Your task to perform on an android device: Open a new Chrome incognito tab Image 0: 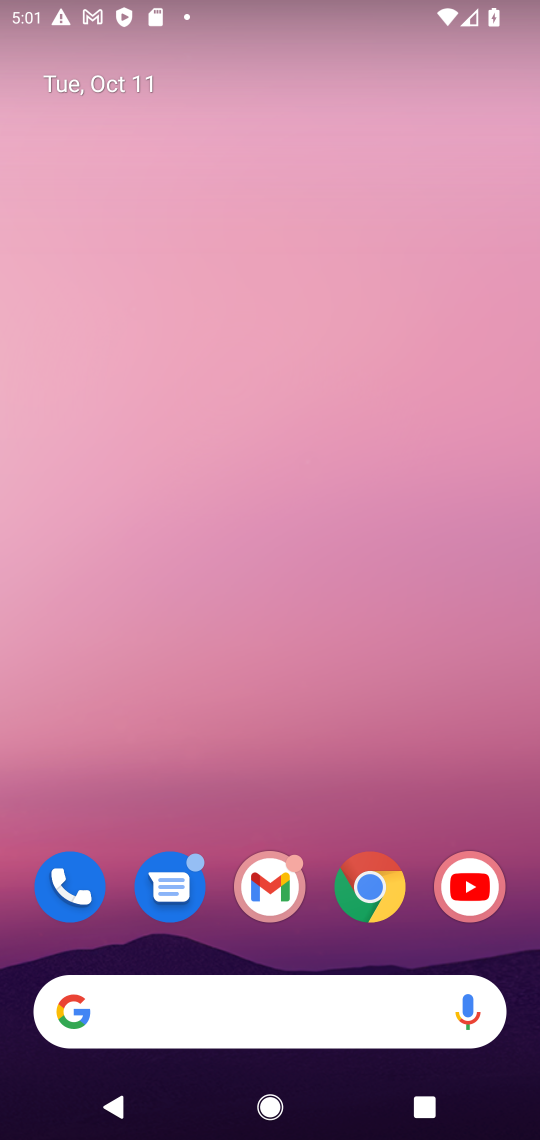
Step 0: click (285, 992)
Your task to perform on an android device: Open a new Chrome incognito tab Image 1: 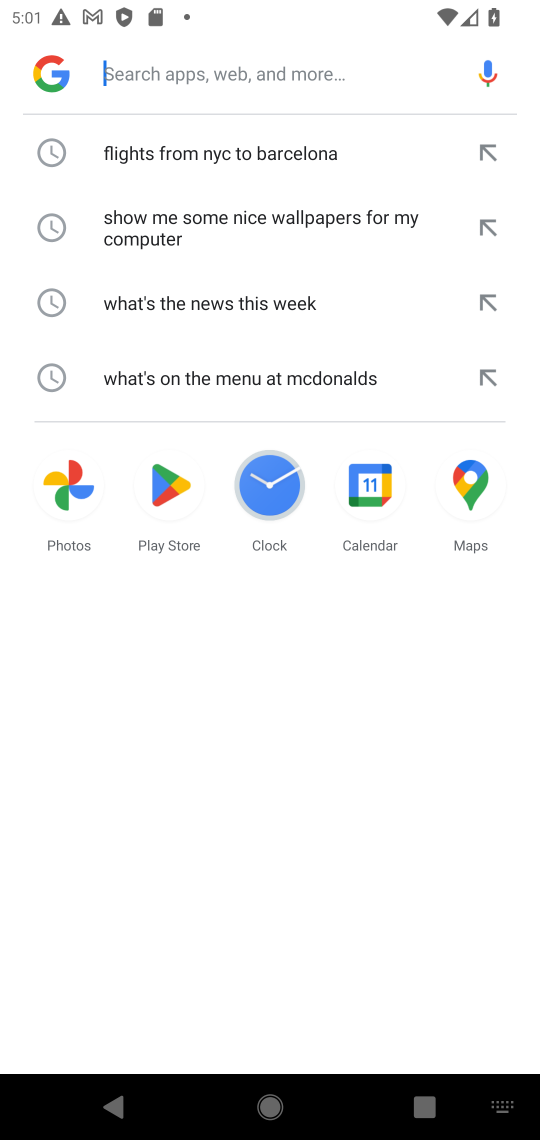
Step 1: press home button
Your task to perform on an android device: Open a new Chrome incognito tab Image 2: 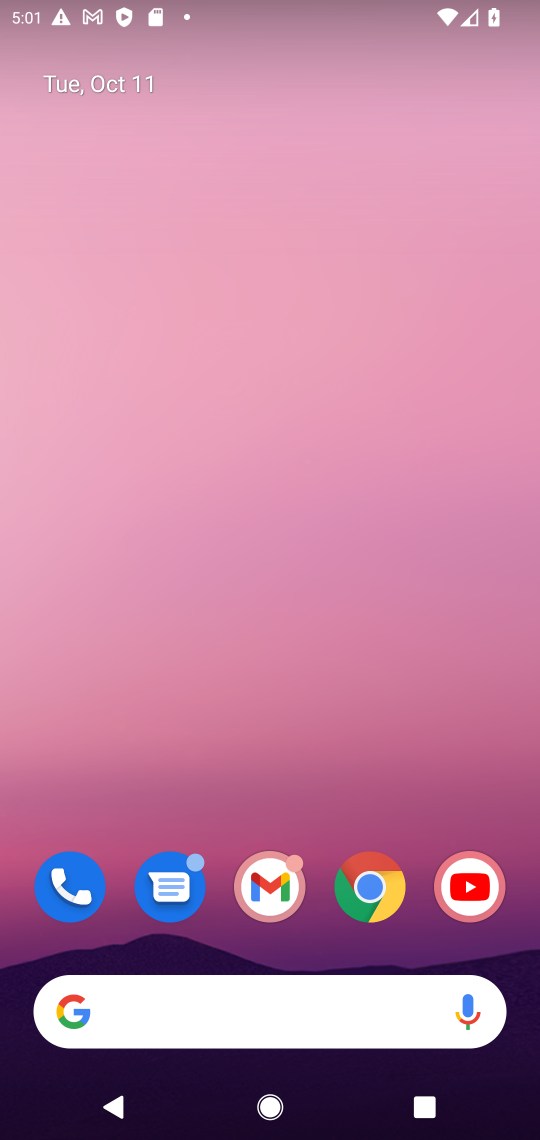
Step 2: click (361, 892)
Your task to perform on an android device: Open a new Chrome incognito tab Image 3: 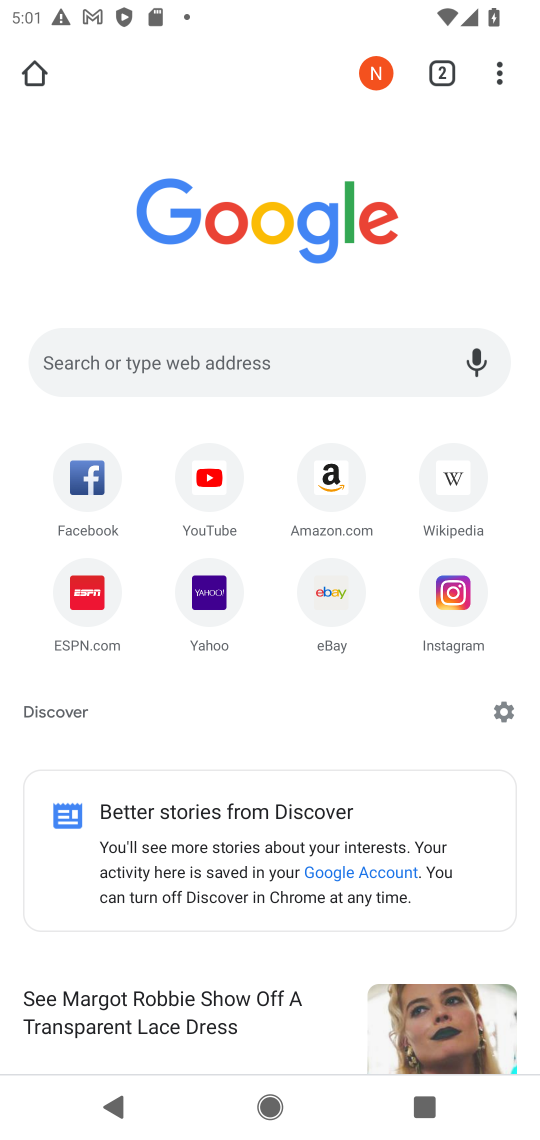
Step 3: click (442, 82)
Your task to perform on an android device: Open a new Chrome incognito tab Image 4: 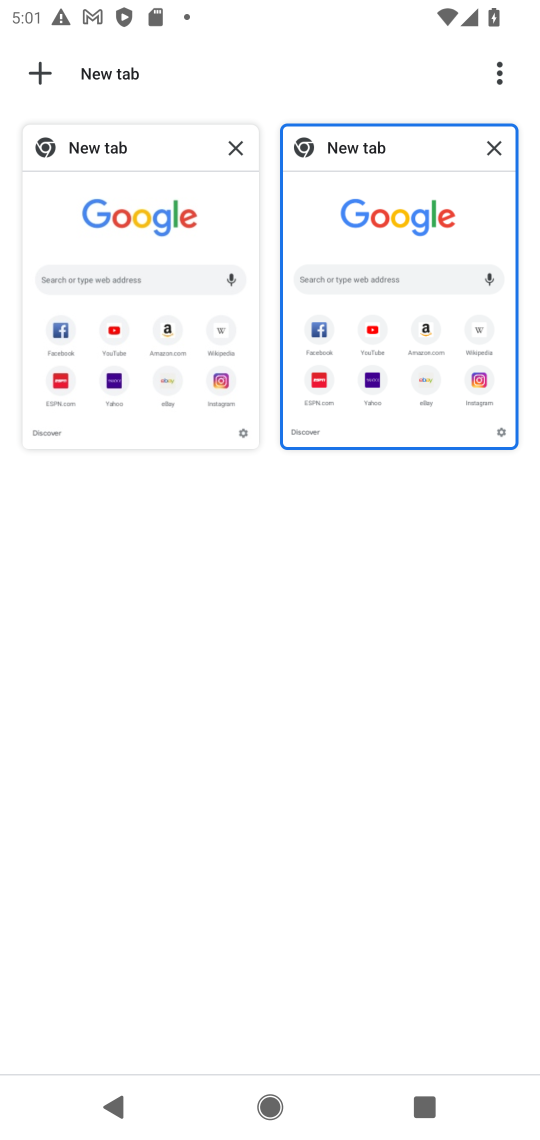
Step 4: click (39, 80)
Your task to perform on an android device: Open a new Chrome incognito tab Image 5: 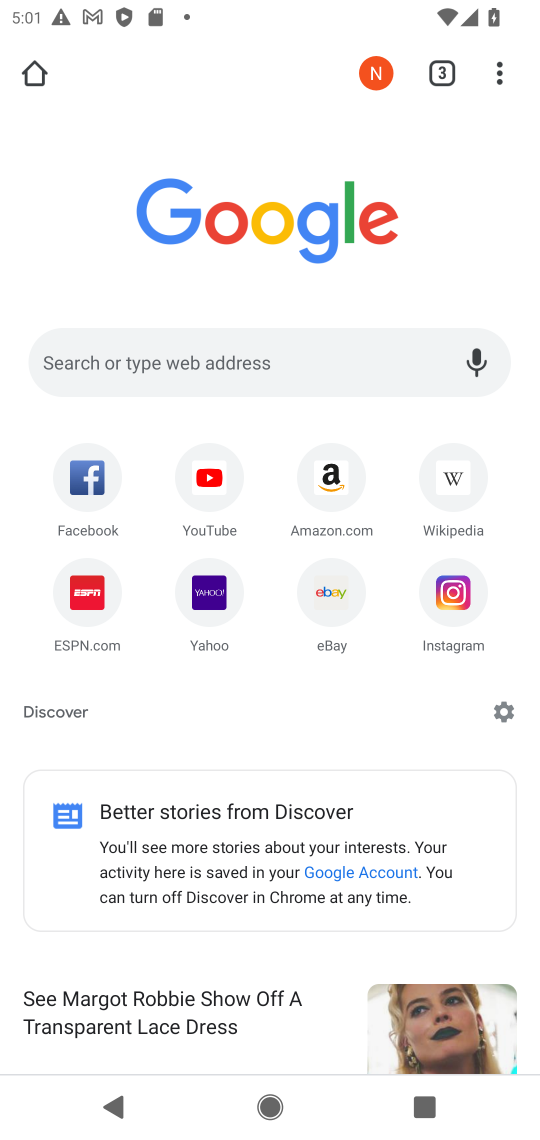
Step 5: task complete